Your task to perform on an android device: Open settings on Google Maps Image 0: 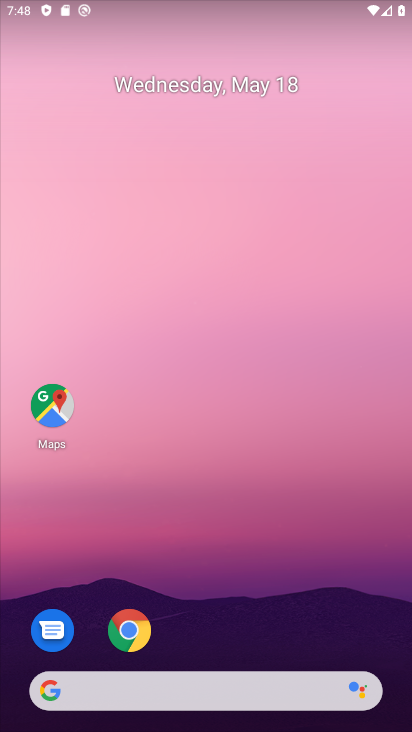
Step 0: click (56, 405)
Your task to perform on an android device: Open settings on Google Maps Image 1: 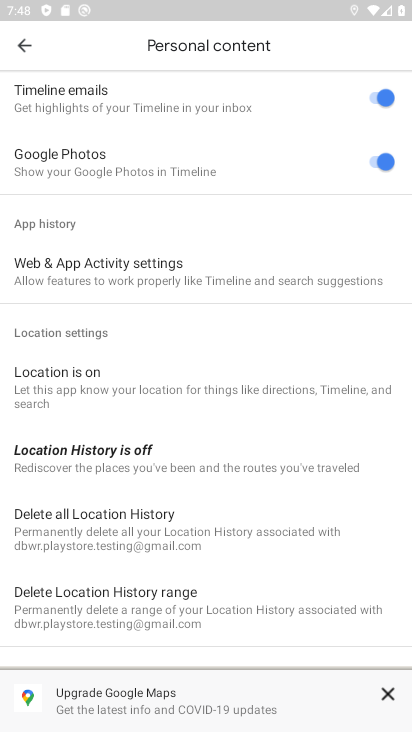
Step 1: click (21, 42)
Your task to perform on an android device: Open settings on Google Maps Image 2: 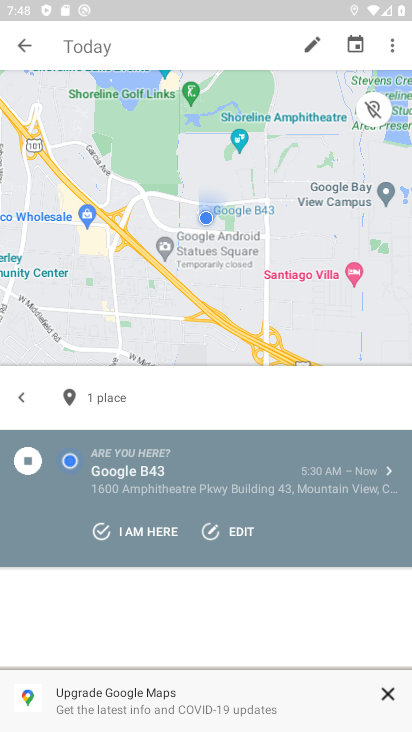
Step 2: click (26, 50)
Your task to perform on an android device: Open settings on Google Maps Image 3: 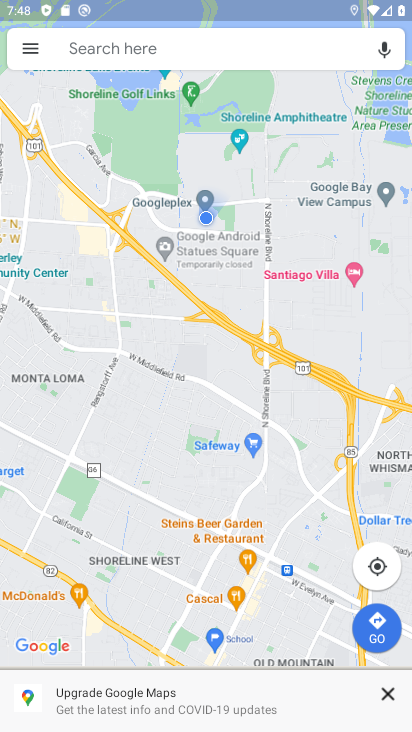
Step 3: click (26, 40)
Your task to perform on an android device: Open settings on Google Maps Image 4: 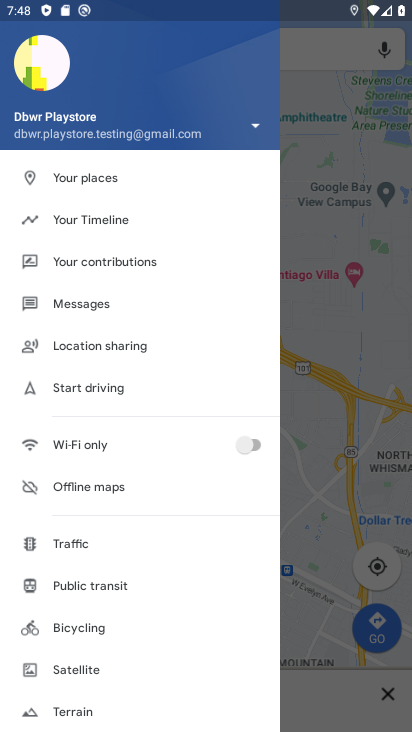
Step 4: drag from (177, 621) to (157, 176)
Your task to perform on an android device: Open settings on Google Maps Image 5: 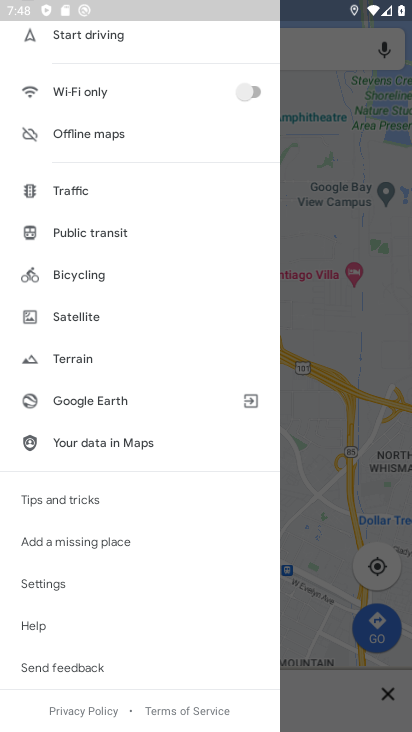
Step 5: click (40, 583)
Your task to perform on an android device: Open settings on Google Maps Image 6: 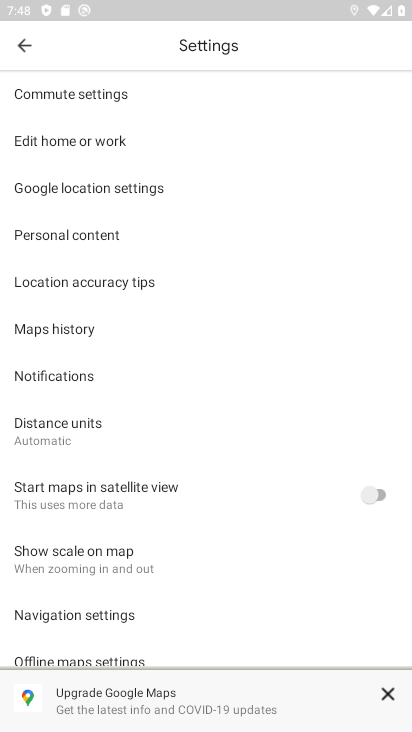
Step 6: task complete